Your task to perform on an android device: When is my next meeting? Image 0: 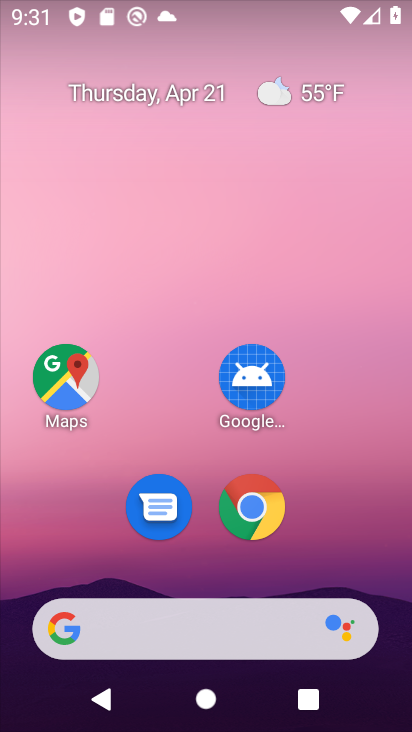
Step 0: click (326, 150)
Your task to perform on an android device: When is my next meeting? Image 1: 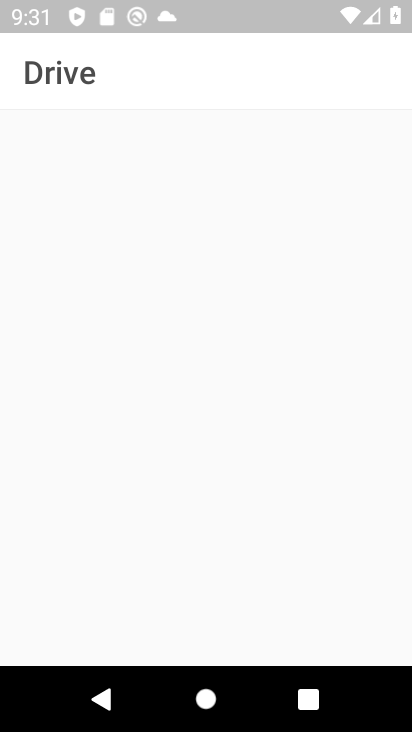
Step 1: press home button
Your task to perform on an android device: When is my next meeting? Image 2: 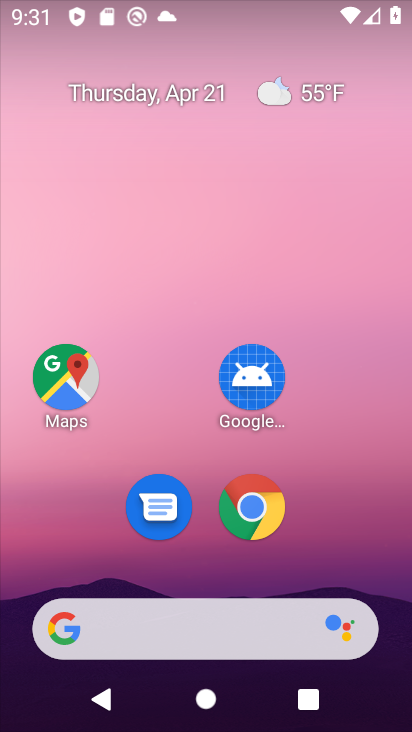
Step 2: drag from (317, 560) to (319, 158)
Your task to perform on an android device: When is my next meeting? Image 3: 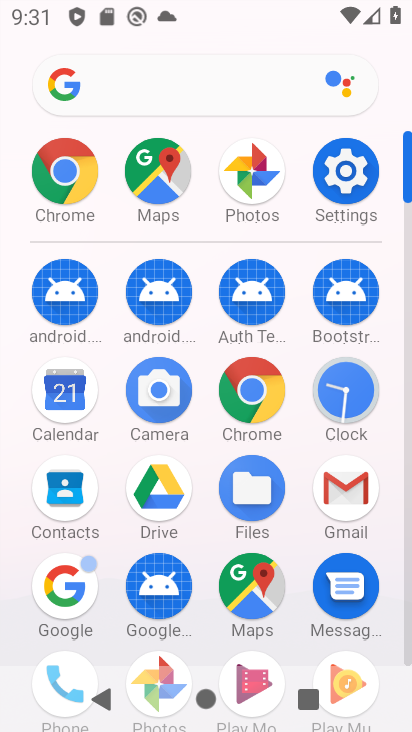
Step 3: click (58, 388)
Your task to perform on an android device: When is my next meeting? Image 4: 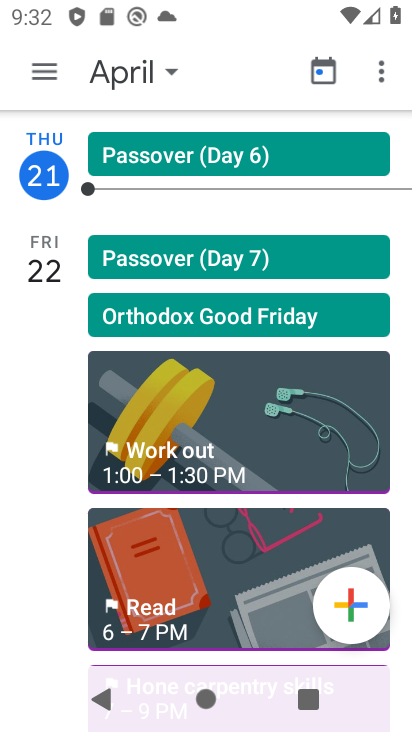
Step 4: click (36, 78)
Your task to perform on an android device: When is my next meeting? Image 5: 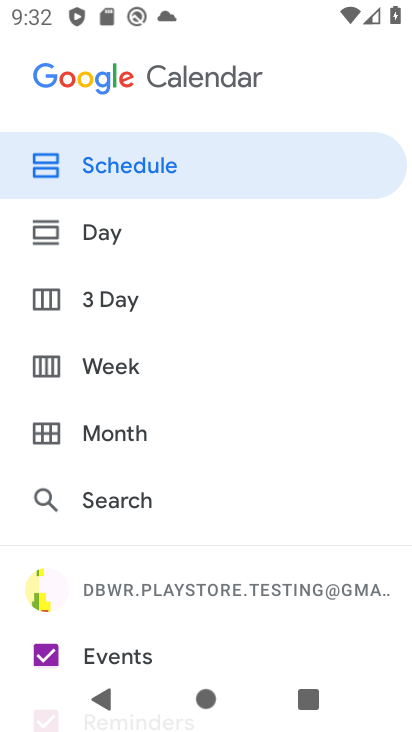
Step 5: click (143, 437)
Your task to perform on an android device: When is my next meeting? Image 6: 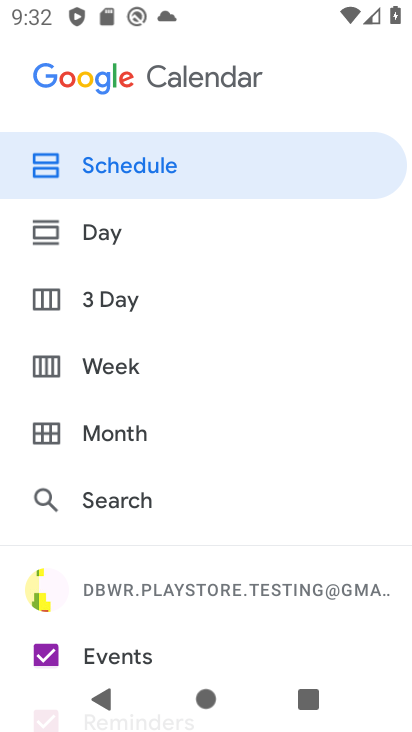
Step 6: click (146, 423)
Your task to perform on an android device: When is my next meeting? Image 7: 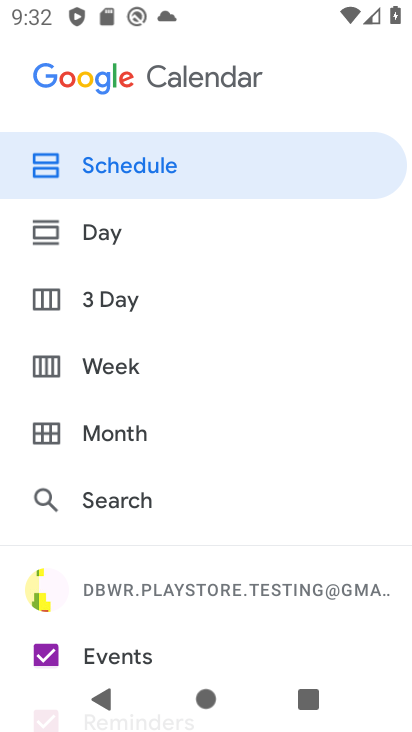
Step 7: click (146, 423)
Your task to perform on an android device: When is my next meeting? Image 8: 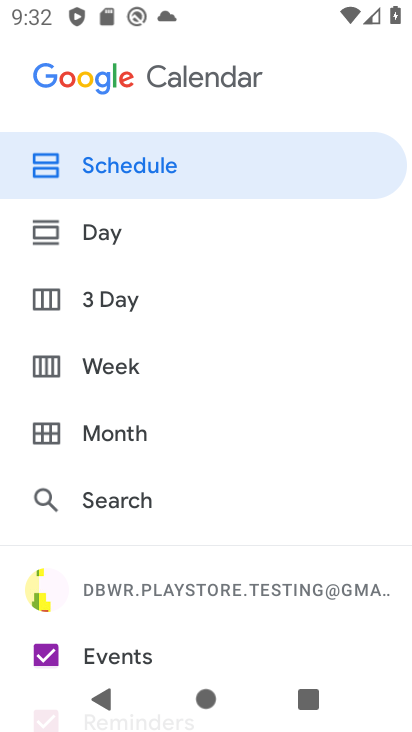
Step 8: click (133, 424)
Your task to perform on an android device: When is my next meeting? Image 9: 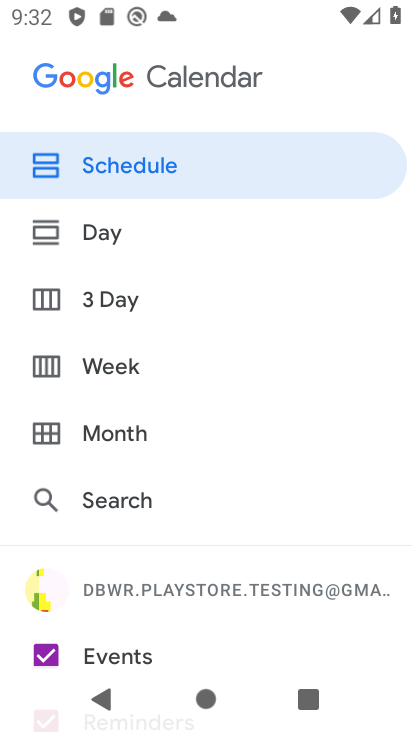
Step 9: click (133, 424)
Your task to perform on an android device: When is my next meeting? Image 10: 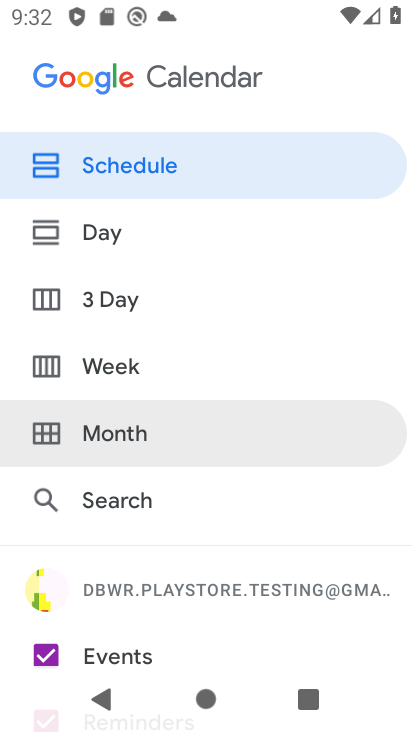
Step 10: click (133, 424)
Your task to perform on an android device: When is my next meeting? Image 11: 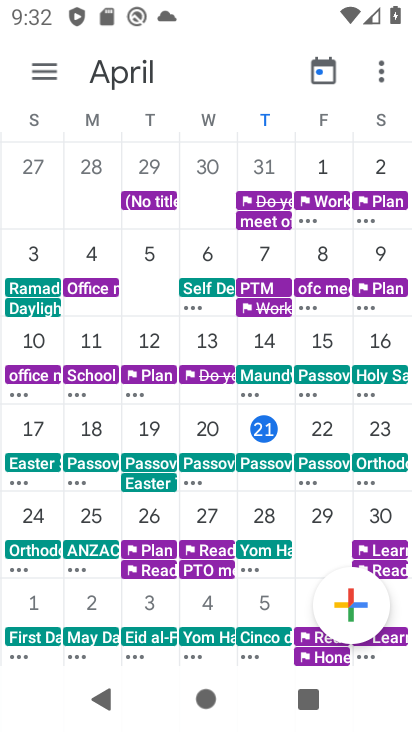
Step 11: click (306, 430)
Your task to perform on an android device: When is my next meeting? Image 12: 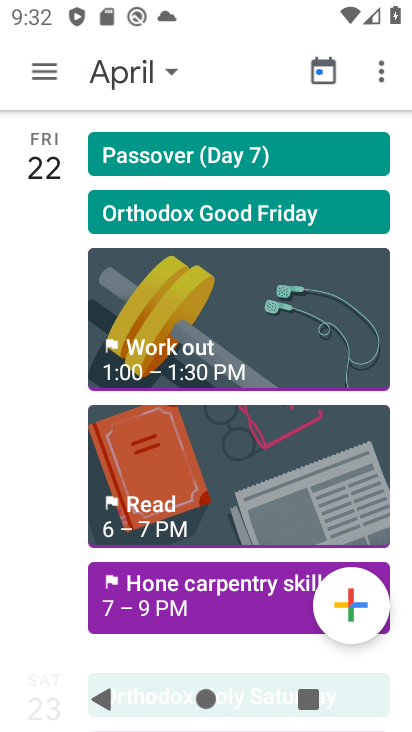
Step 12: click (250, 595)
Your task to perform on an android device: When is my next meeting? Image 13: 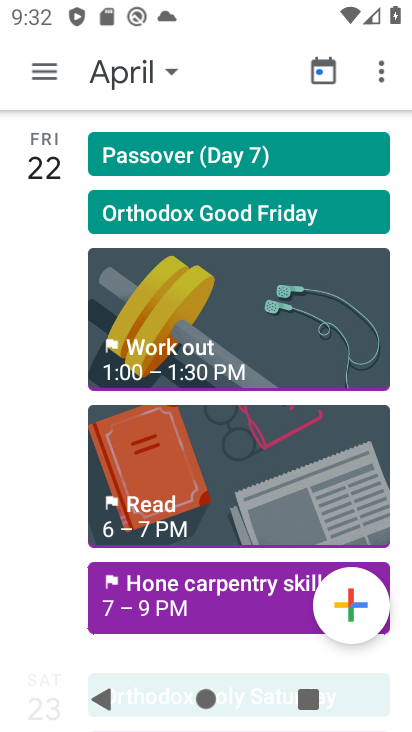
Step 13: task complete